Your task to perform on an android device: Open ESPN.com Image 0: 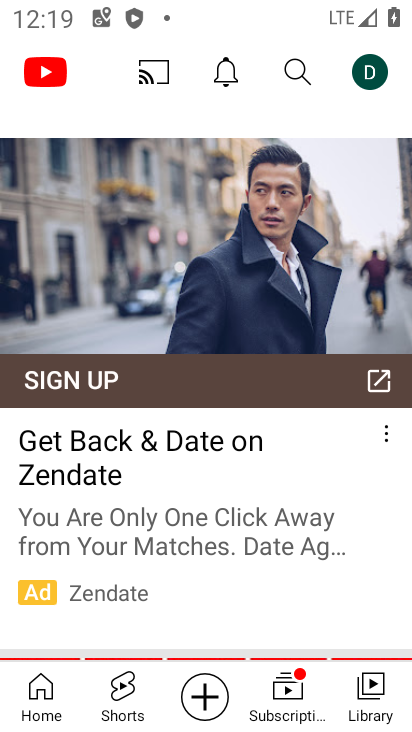
Step 0: press home button
Your task to perform on an android device: Open ESPN.com Image 1: 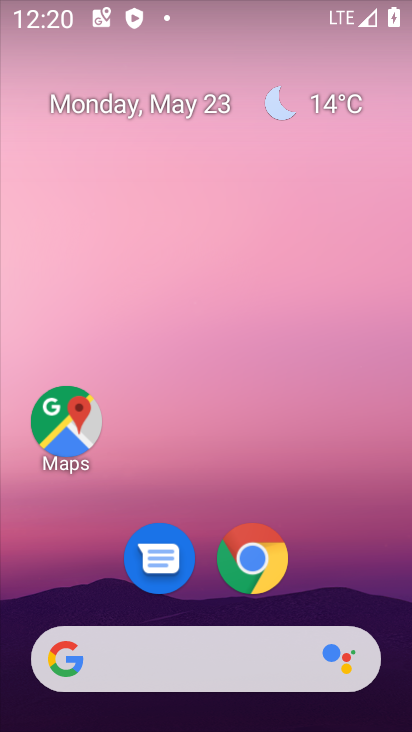
Step 1: click (257, 559)
Your task to perform on an android device: Open ESPN.com Image 2: 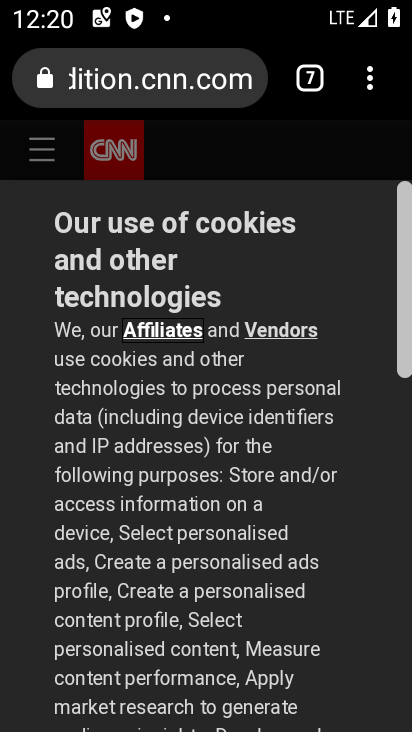
Step 2: click (138, 94)
Your task to perform on an android device: Open ESPN.com Image 3: 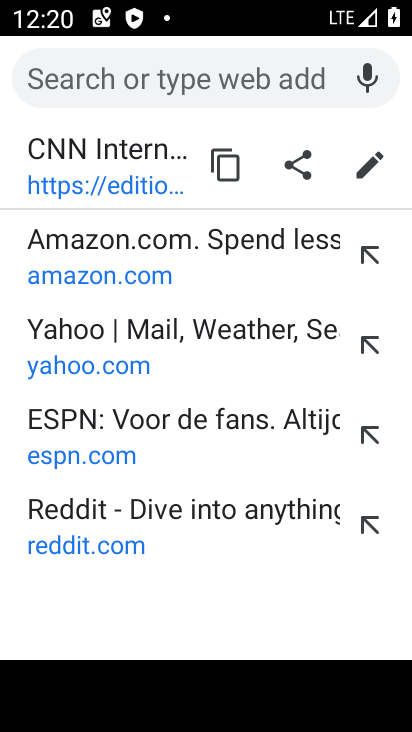
Step 3: click (65, 430)
Your task to perform on an android device: Open ESPN.com Image 4: 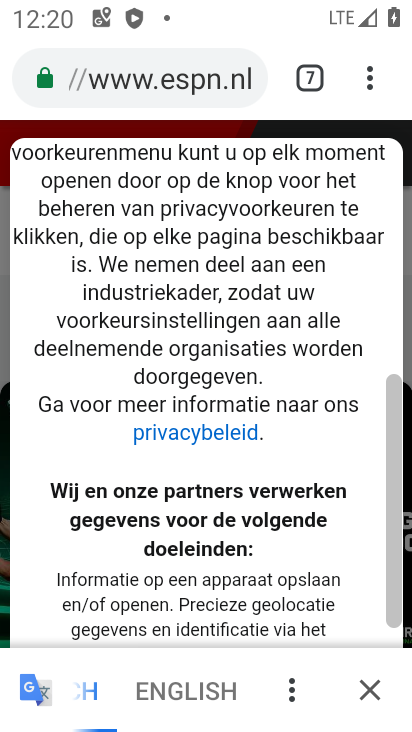
Step 4: task complete